Your task to perform on an android device: turn off location Image 0: 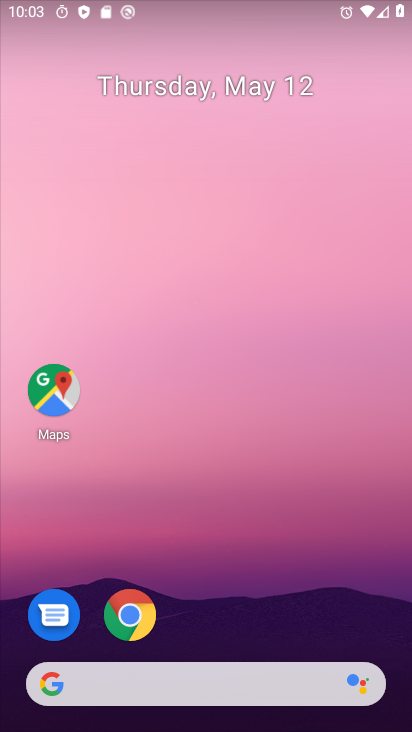
Step 0: drag from (237, 618) to (256, 11)
Your task to perform on an android device: turn off location Image 1: 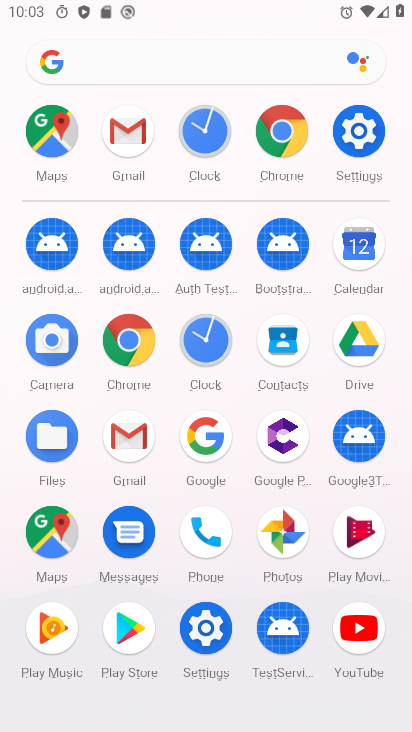
Step 1: click (348, 143)
Your task to perform on an android device: turn off location Image 2: 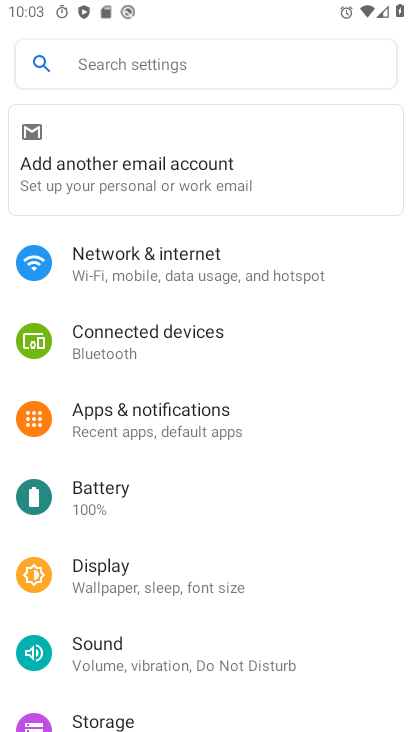
Step 2: drag from (129, 531) to (229, 163)
Your task to perform on an android device: turn off location Image 3: 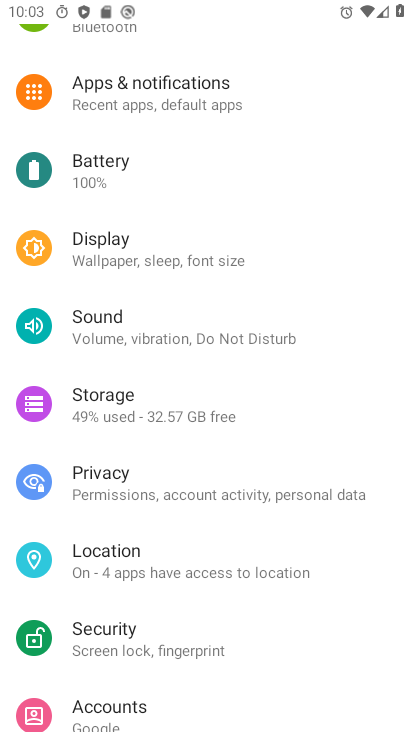
Step 3: click (145, 554)
Your task to perform on an android device: turn off location Image 4: 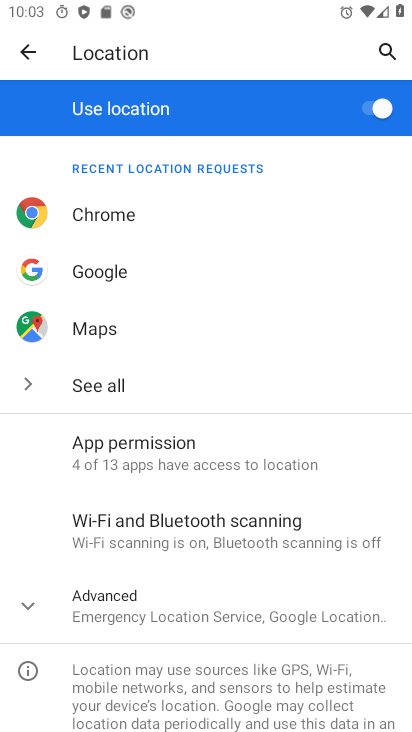
Step 4: click (333, 113)
Your task to perform on an android device: turn off location Image 5: 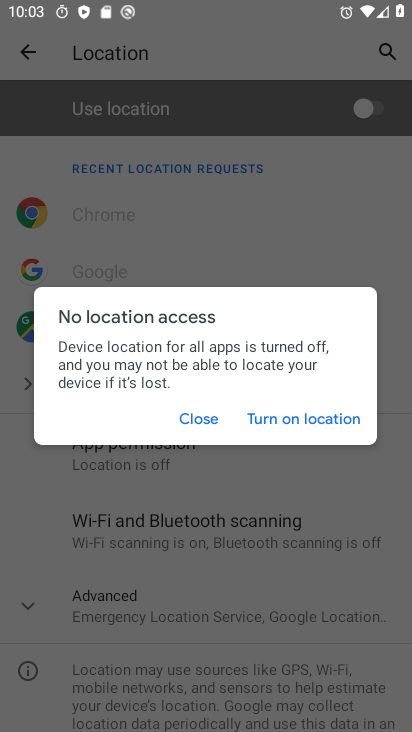
Step 5: task complete